Your task to perform on an android device: find photos in the google photos app Image 0: 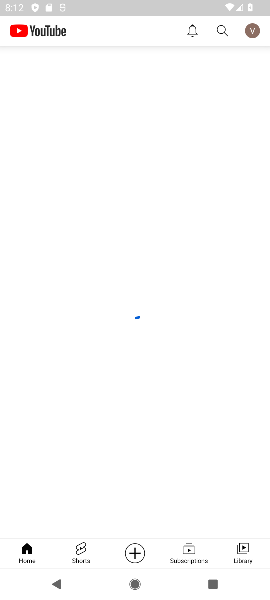
Step 0: press home button
Your task to perform on an android device: find photos in the google photos app Image 1: 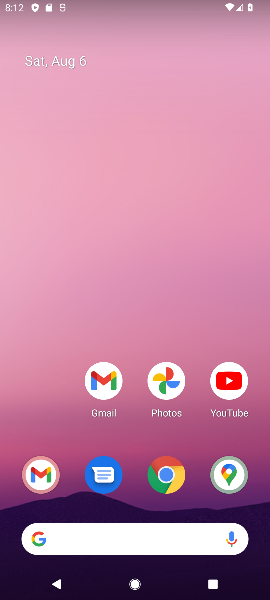
Step 1: click (159, 382)
Your task to perform on an android device: find photos in the google photos app Image 2: 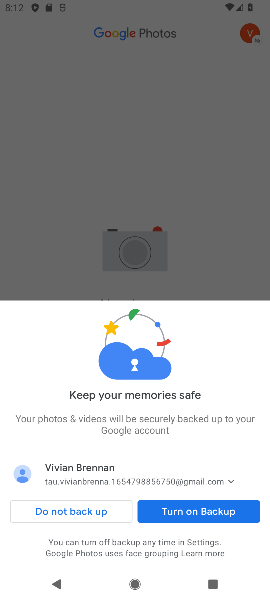
Step 2: click (114, 506)
Your task to perform on an android device: find photos in the google photos app Image 3: 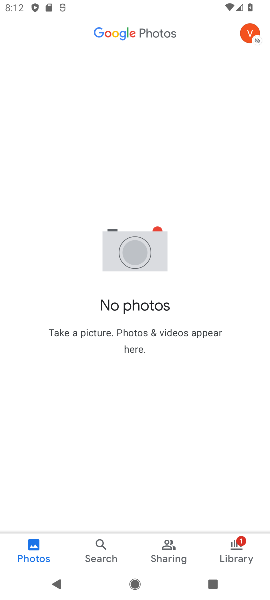
Step 3: click (42, 544)
Your task to perform on an android device: find photos in the google photos app Image 4: 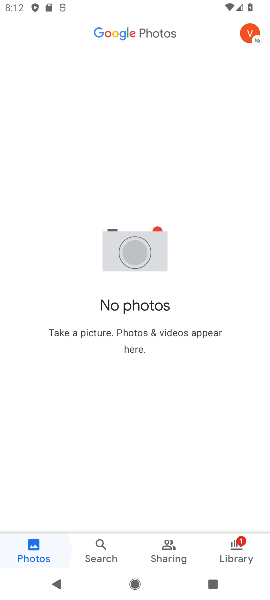
Step 4: click (109, 46)
Your task to perform on an android device: find photos in the google photos app Image 5: 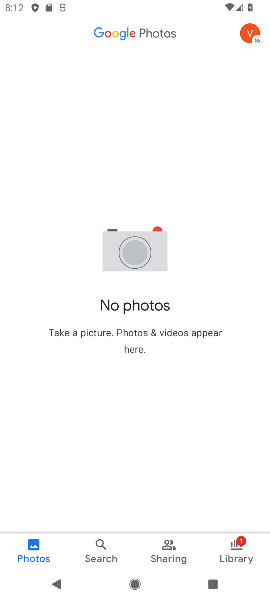
Step 5: click (121, 40)
Your task to perform on an android device: find photos in the google photos app Image 6: 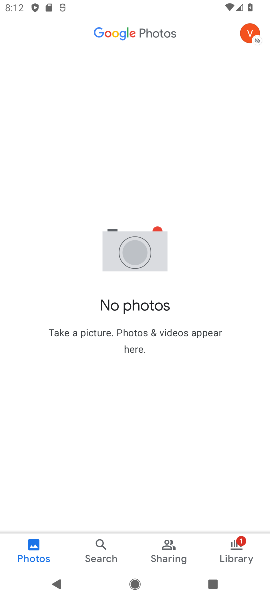
Step 6: task complete